Your task to perform on an android device: Open my contact list Image 0: 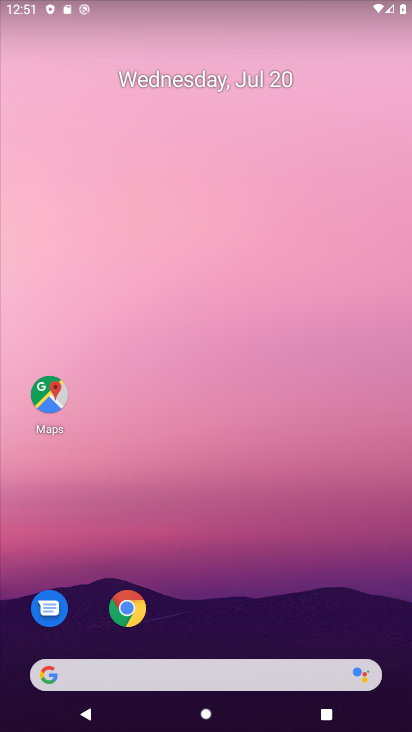
Step 0: drag from (322, 639) to (10, 580)
Your task to perform on an android device: Open my contact list Image 1: 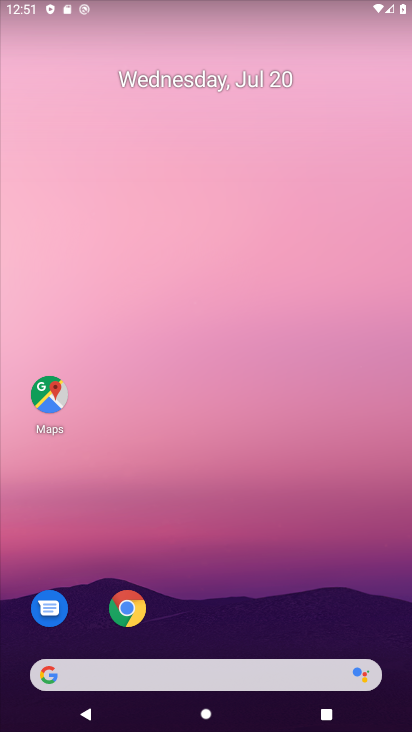
Step 1: drag from (270, 460) to (314, 86)
Your task to perform on an android device: Open my contact list Image 2: 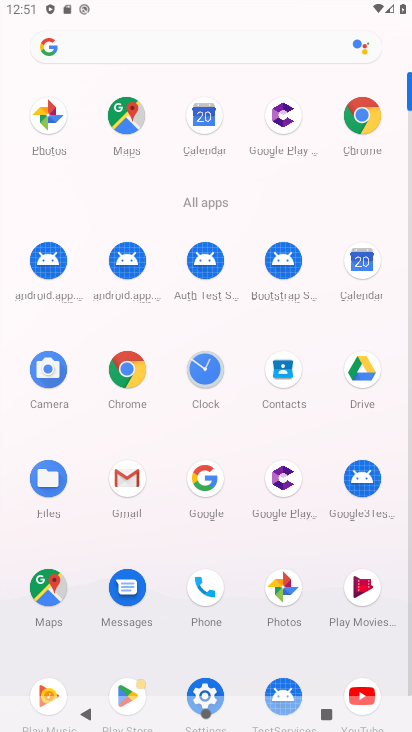
Step 2: click (204, 591)
Your task to perform on an android device: Open my contact list Image 3: 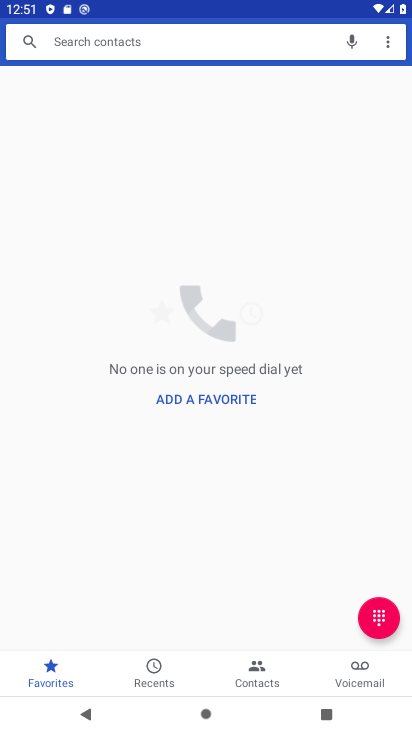
Step 3: click (251, 675)
Your task to perform on an android device: Open my contact list Image 4: 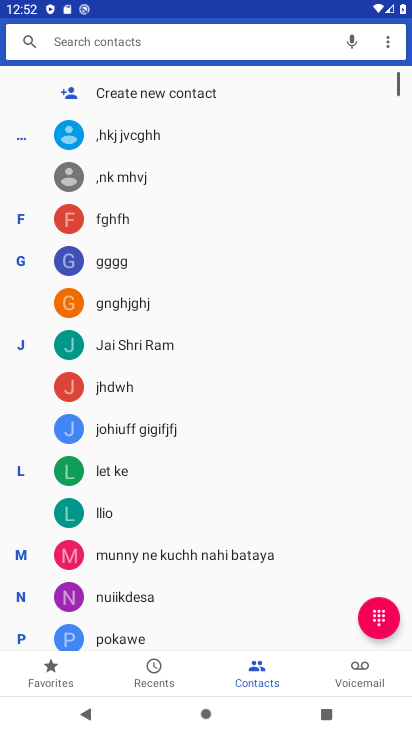
Step 4: task complete